Your task to perform on an android device: check storage Image 0: 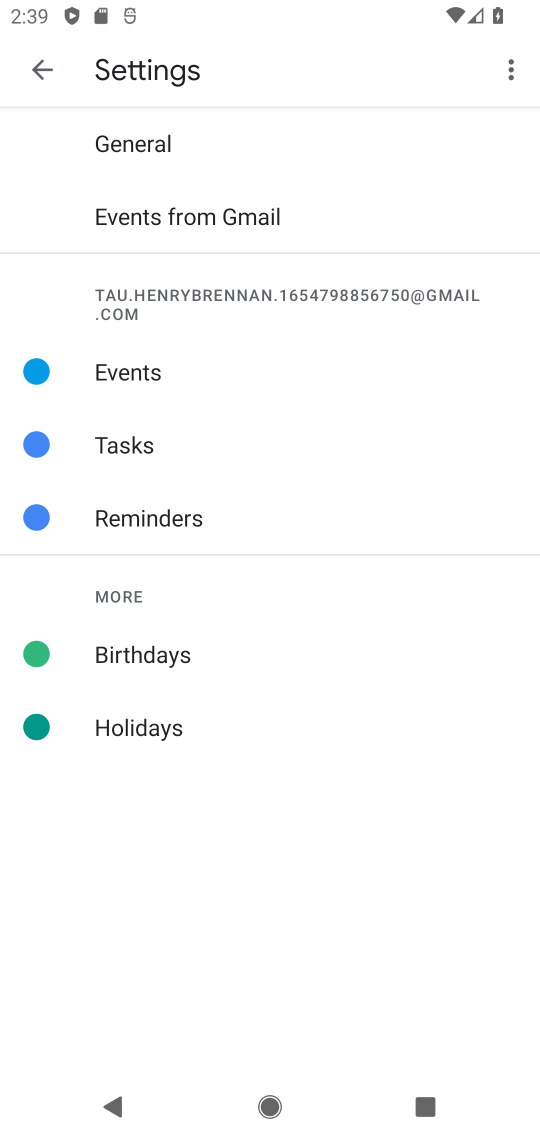
Step 0: press home button
Your task to perform on an android device: check storage Image 1: 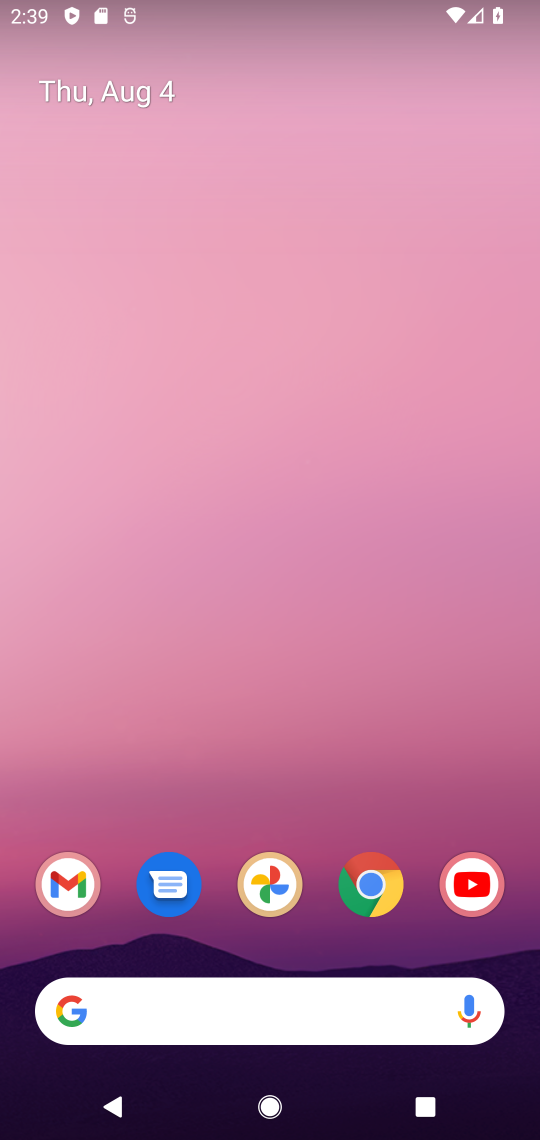
Step 1: drag from (300, 957) to (294, 386)
Your task to perform on an android device: check storage Image 2: 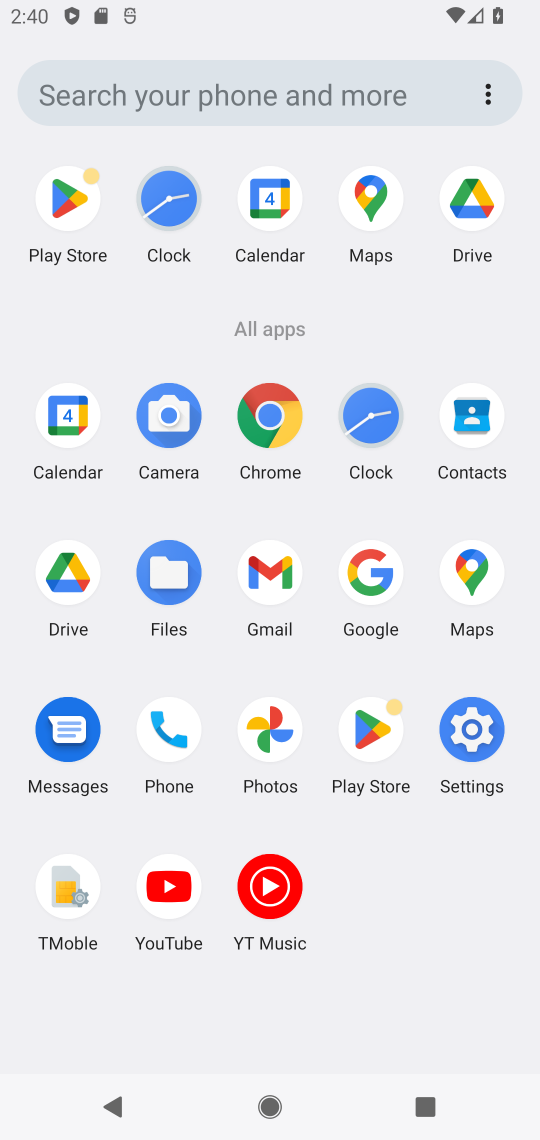
Step 2: click (477, 723)
Your task to perform on an android device: check storage Image 3: 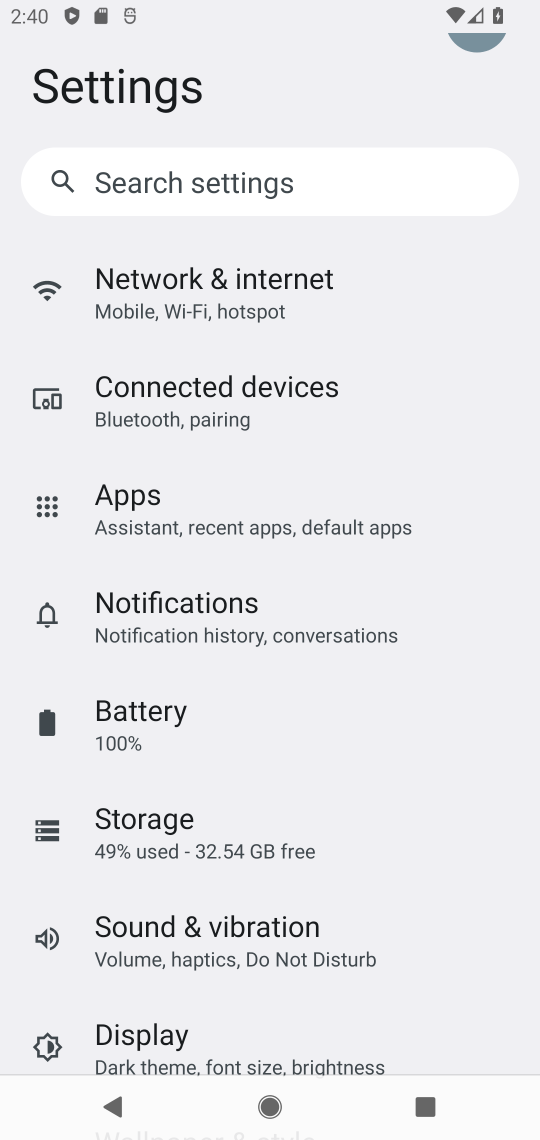
Step 3: click (209, 828)
Your task to perform on an android device: check storage Image 4: 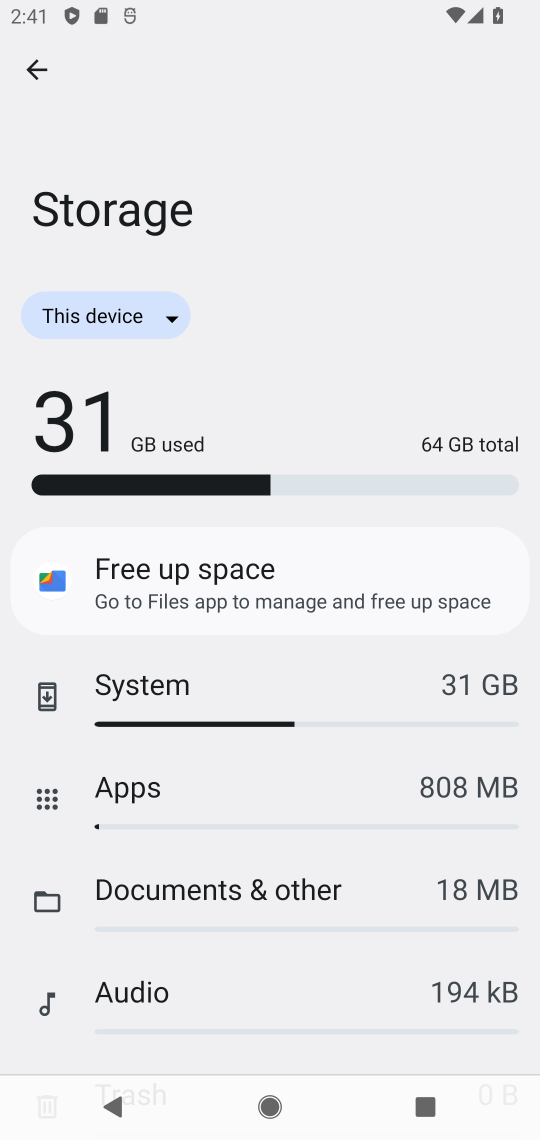
Step 4: task complete